Your task to perform on an android device: Go to CNN.com Image 0: 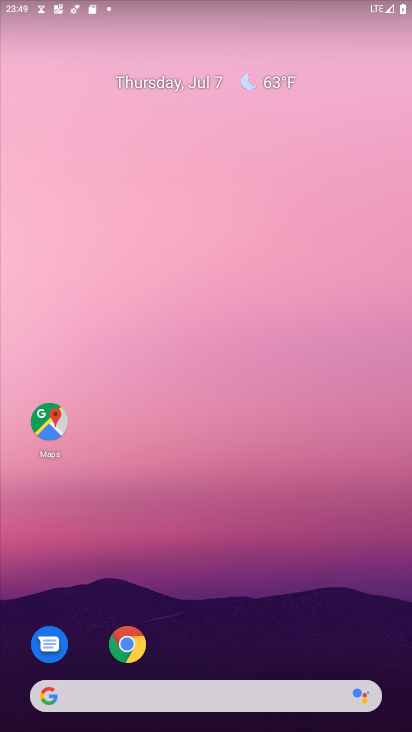
Step 0: click (122, 642)
Your task to perform on an android device: Go to CNN.com Image 1: 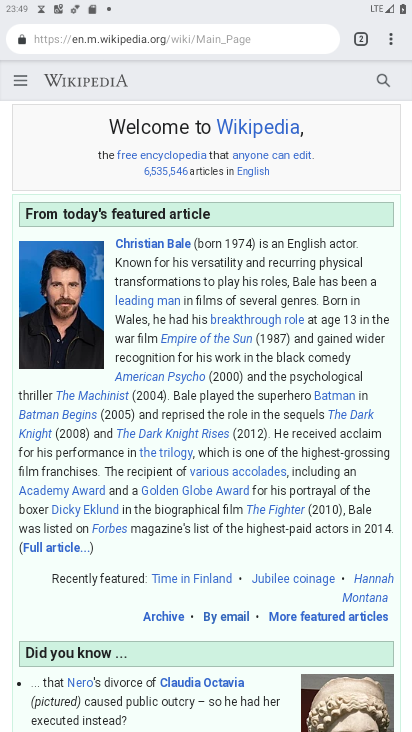
Step 1: click (390, 41)
Your task to perform on an android device: Go to CNN.com Image 2: 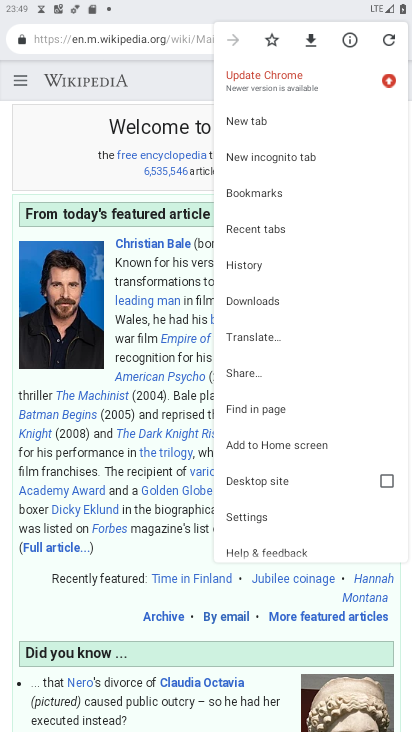
Step 2: click (247, 120)
Your task to perform on an android device: Go to CNN.com Image 3: 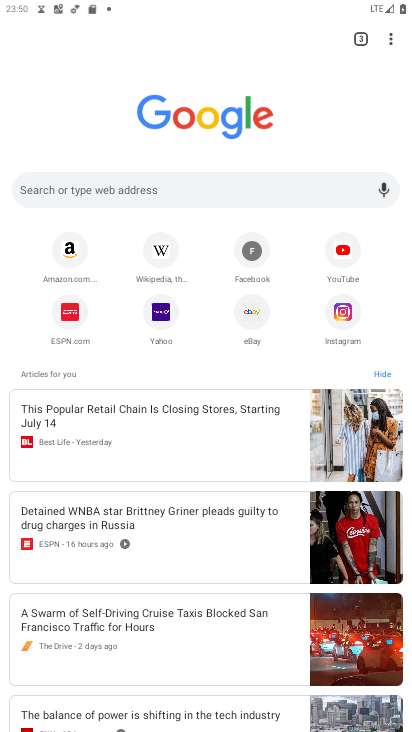
Step 3: click (181, 181)
Your task to perform on an android device: Go to CNN.com Image 4: 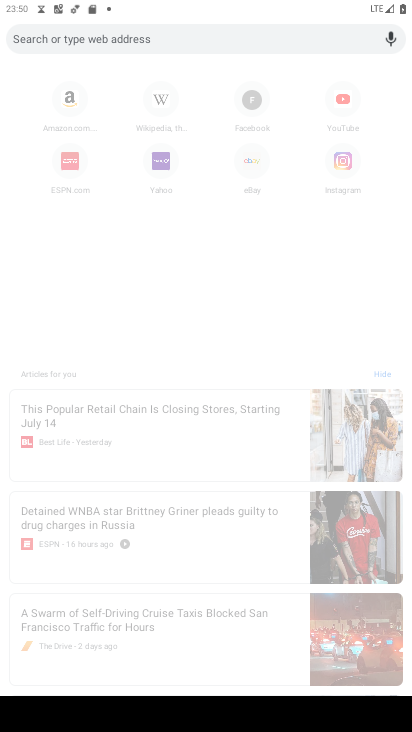
Step 4: type "CNN.com"
Your task to perform on an android device: Go to CNN.com Image 5: 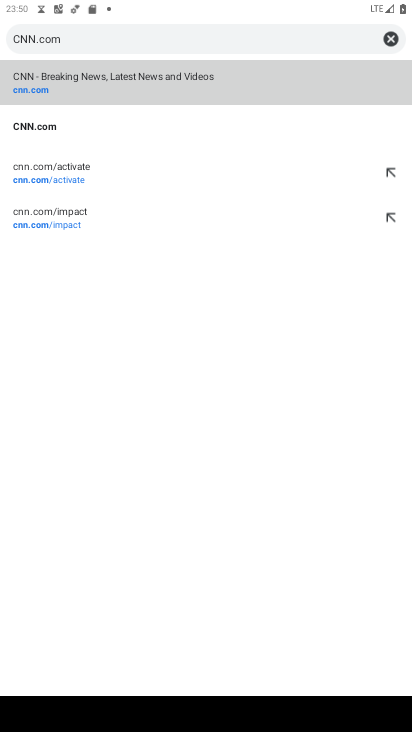
Step 5: click (119, 77)
Your task to perform on an android device: Go to CNN.com Image 6: 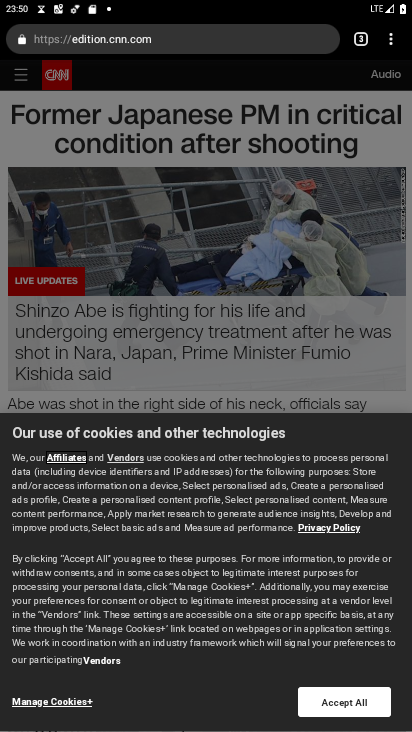
Step 6: task complete